Your task to perform on an android device: Open battery settings Image 0: 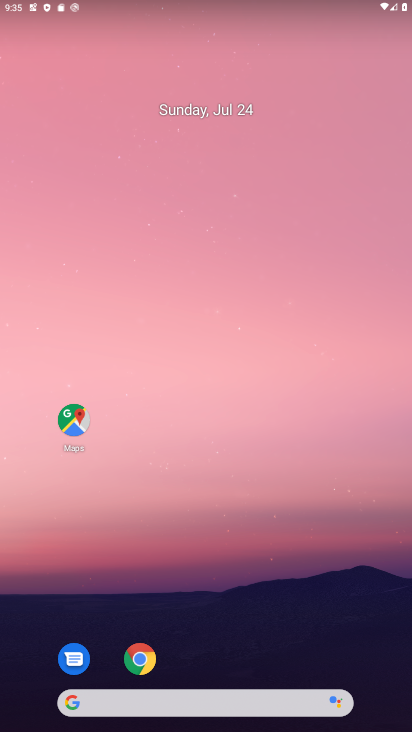
Step 0: drag from (384, 604) to (342, 110)
Your task to perform on an android device: Open battery settings Image 1: 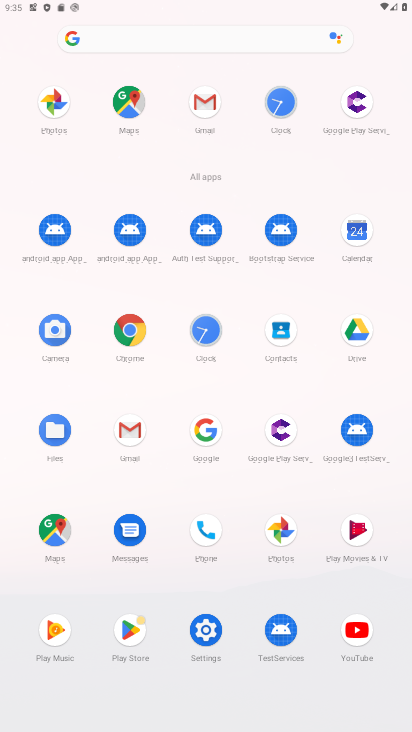
Step 1: click (208, 627)
Your task to perform on an android device: Open battery settings Image 2: 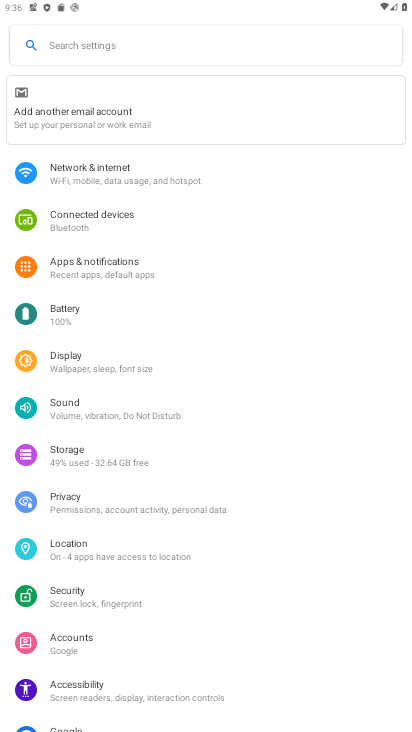
Step 2: click (53, 310)
Your task to perform on an android device: Open battery settings Image 3: 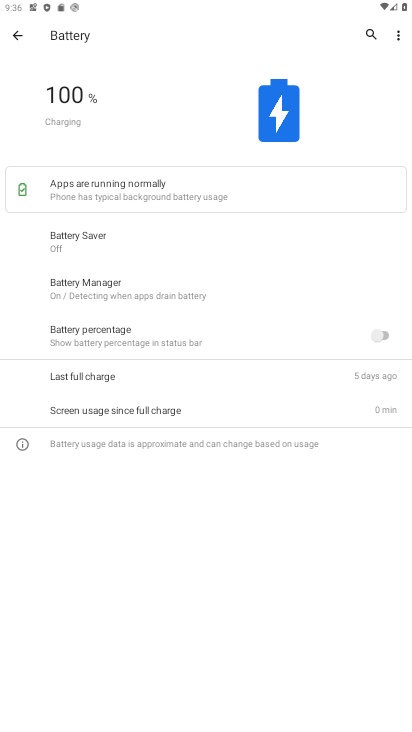
Step 3: task complete